Your task to perform on an android device: Open the stopwatch Image 0: 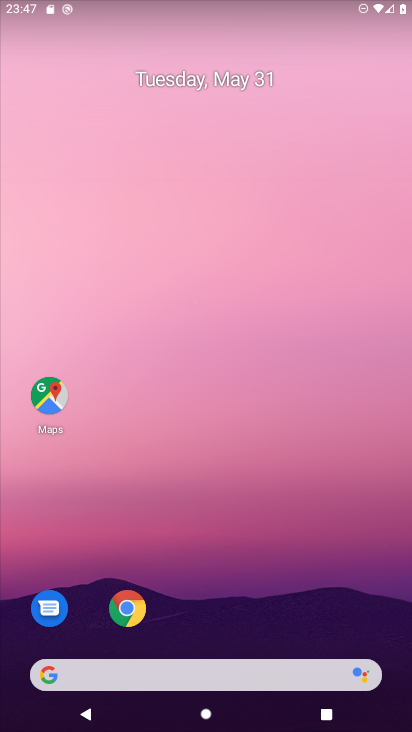
Step 0: drag from (242, 633) to (248, 9)
Your task to perform on an android device: Open the stopwatch Image 1: 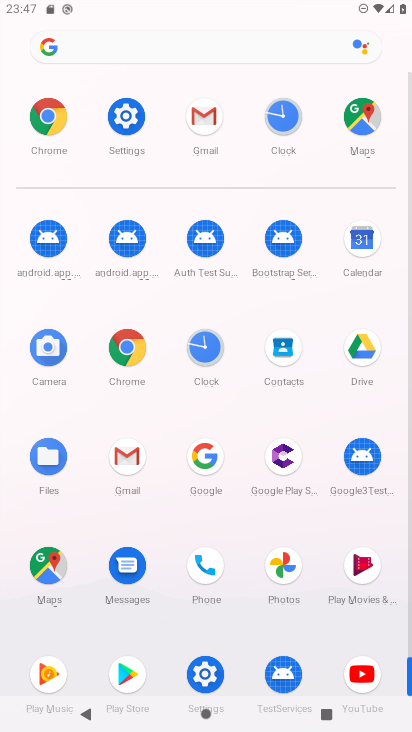
Step 1: click (215, 327)
Your task to perform on an android device: Open the stopwatch Image 2: 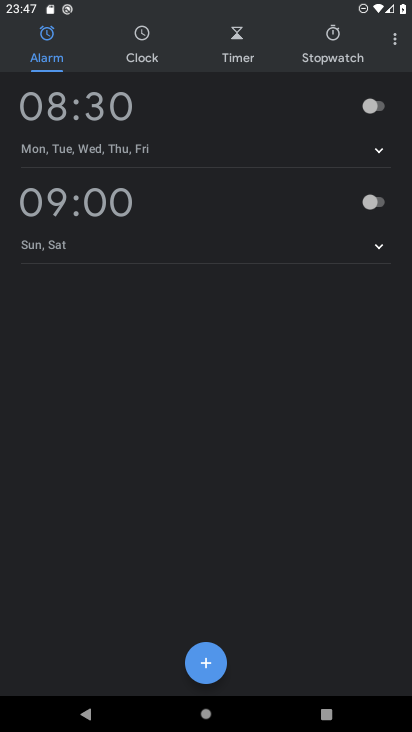
Step 2: click (335, 42)
Your task to perform on an android device: Open the stopwatch Image 3: 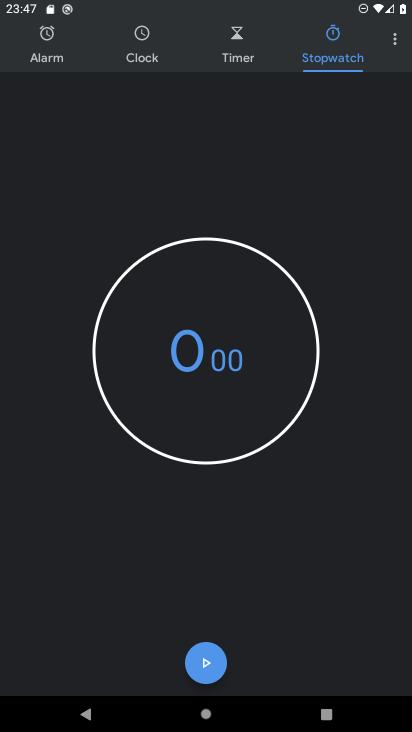
Step 3: task complete